Your task to perform on an android device: Open Google Maps Image 0: 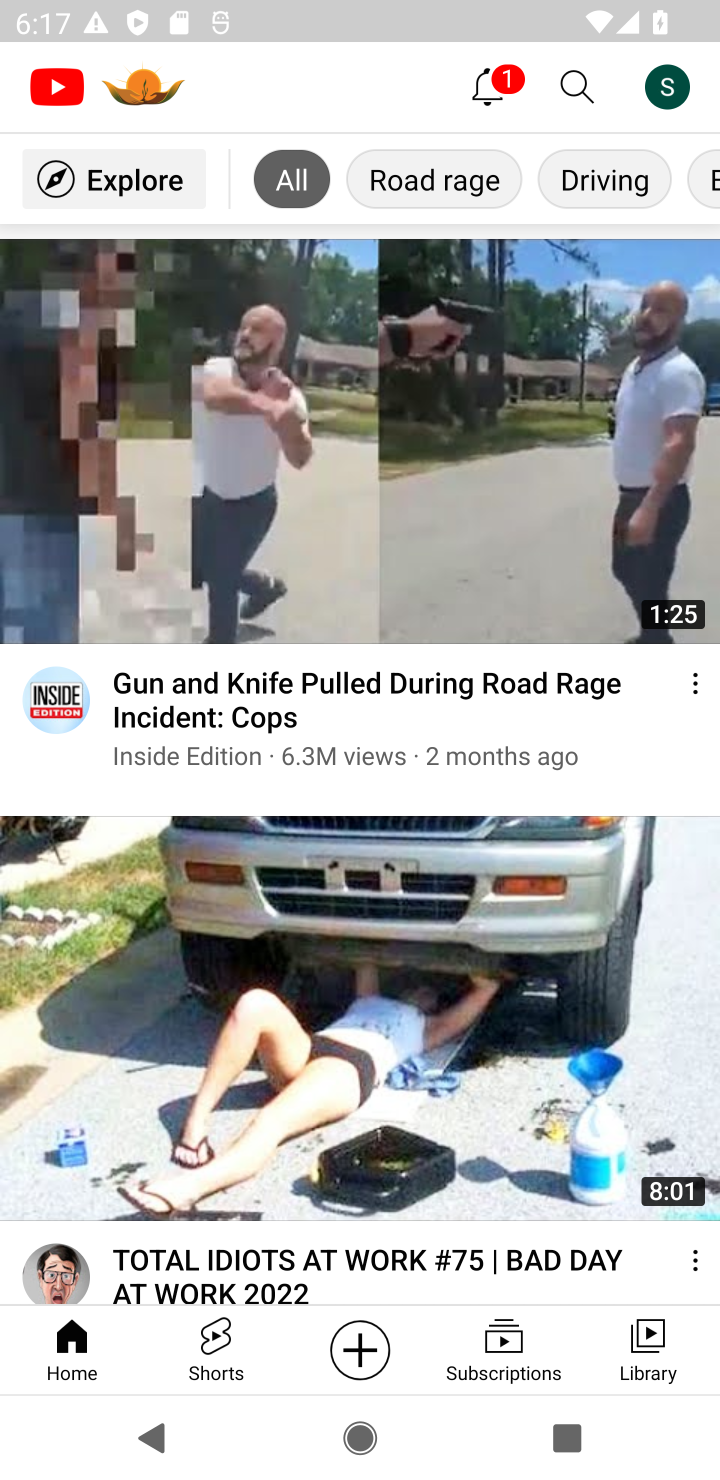
Step 0: press back button
Your task to perform on an android device: Open Google Maps Image 1: 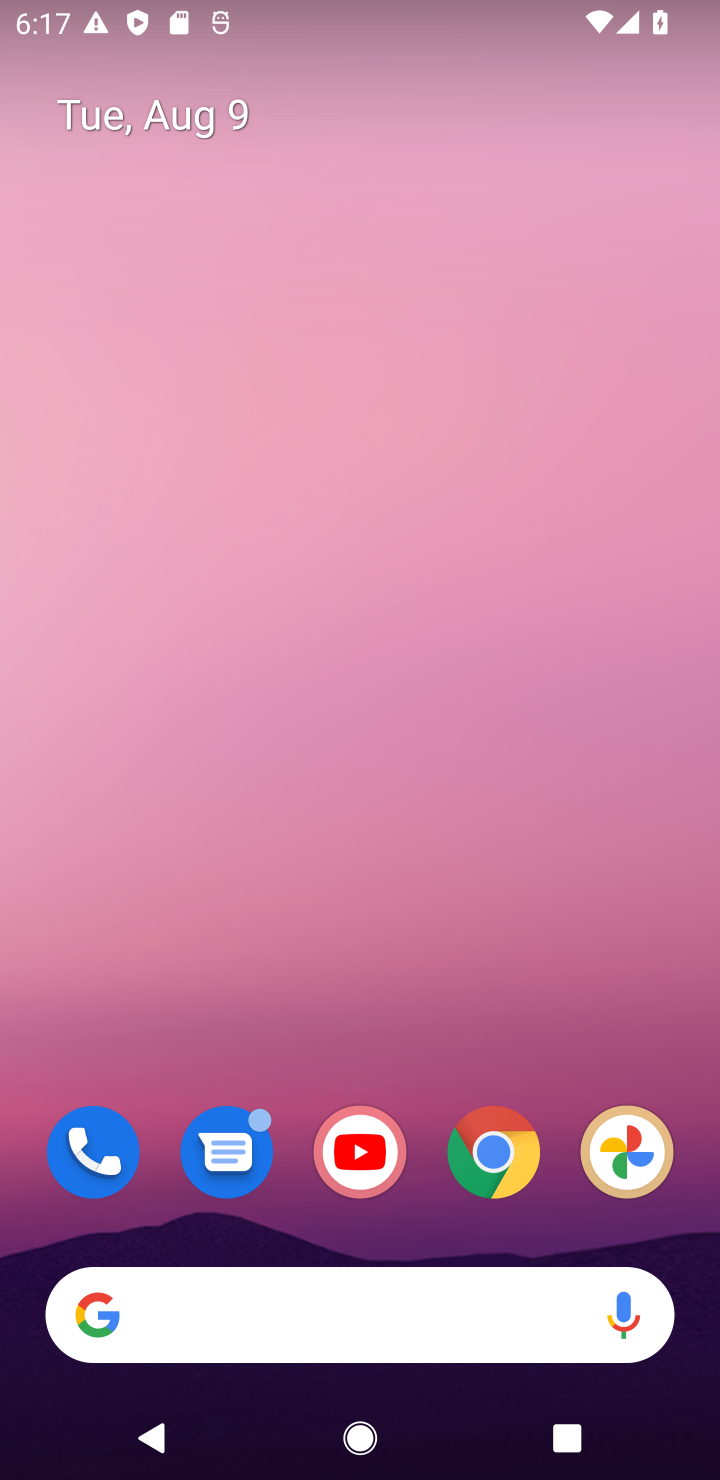
Step 1: drag from (388, 1260) to (621, 31)
Your task to perform on an android device: Open Google Maps Image 2: 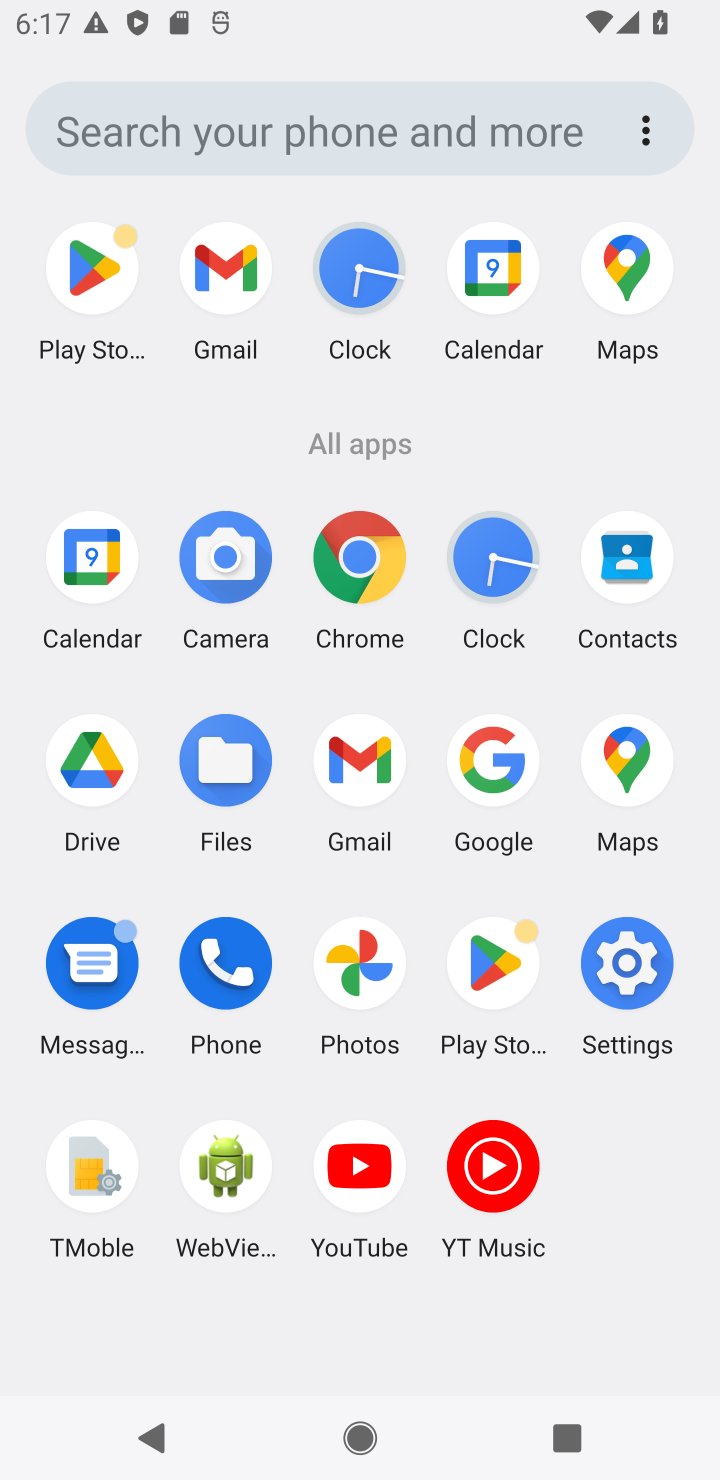
Step 2: click (643, 301)
Your task to perform on an android device: Open Google Maps Image 3: 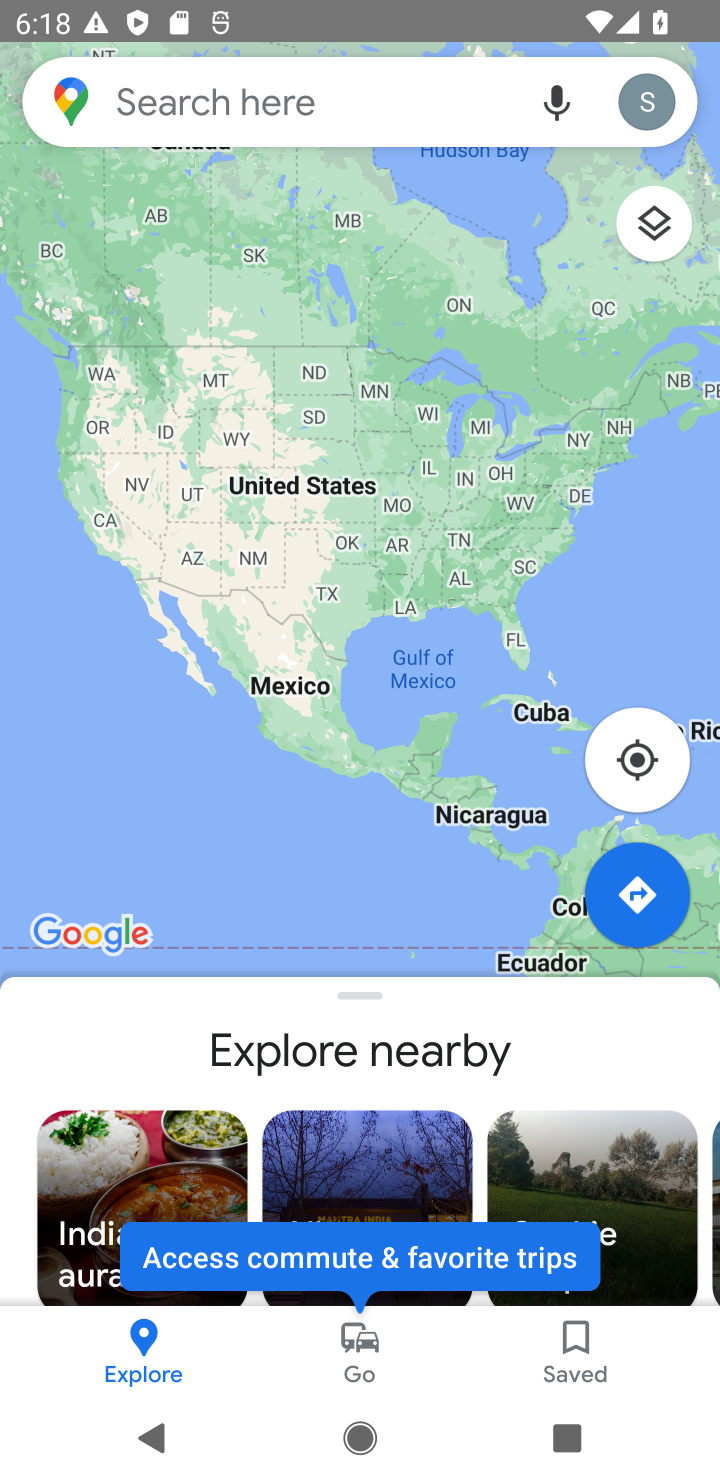
Step 3: task complete